Your task to perform on an android device: manage bookmarks in the chrome app Image 0: 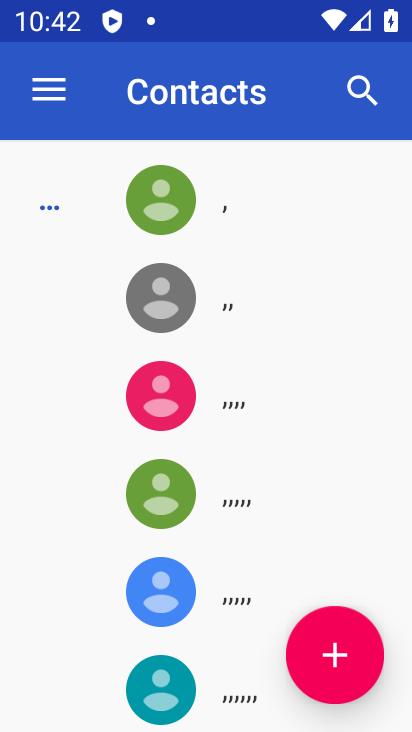
Step 0: press home button
Your task to perform on an android device: manage bookmarks in the chrome app Image 1: 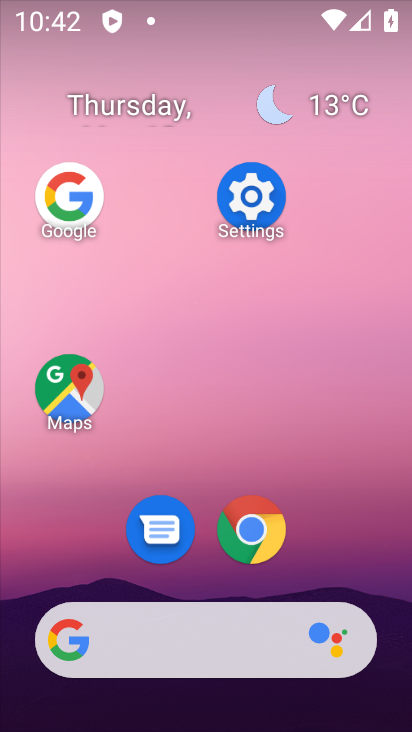
Step 1: click (242, 526)
Your task to perform on an android device: manage bookmarks in the chrome app Image 2: 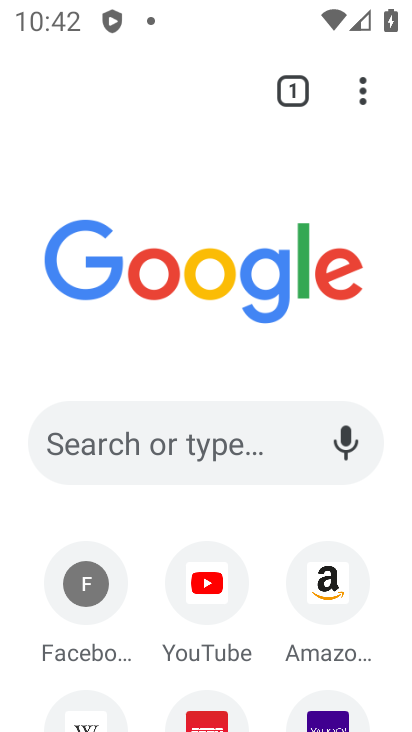
Step 2: click (362, 88)
Your task to perform on an android device: manage bookmarks in the chrome app Image 3: 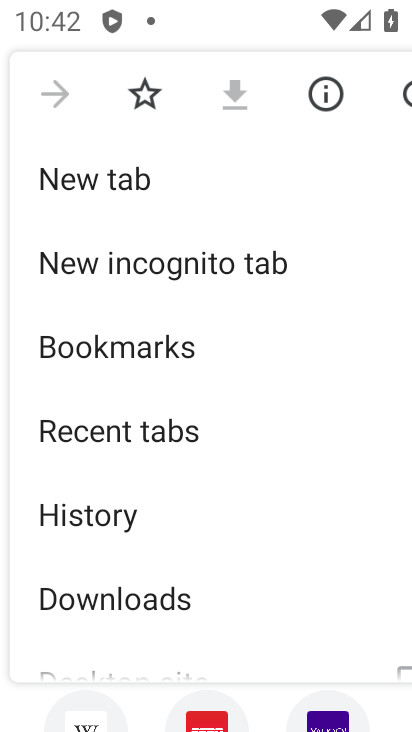
Step 3: click (202, 343)
Your task to perform on an android device: manage bookmarks in the chrome app Image 4: 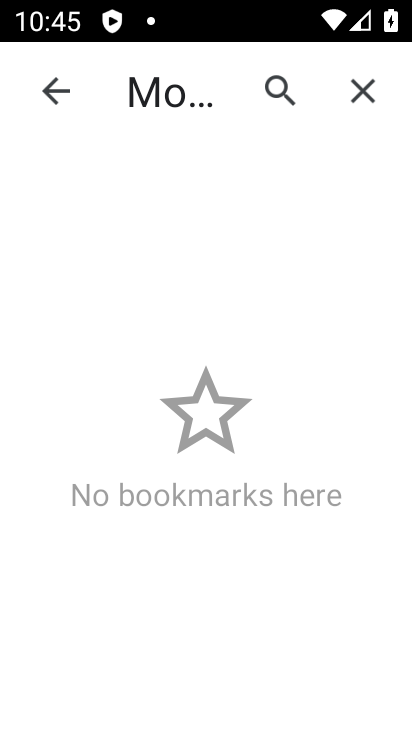
Step 4: task complete